Your task to perform on an android device: open a new tab in the chrome app Image 0: 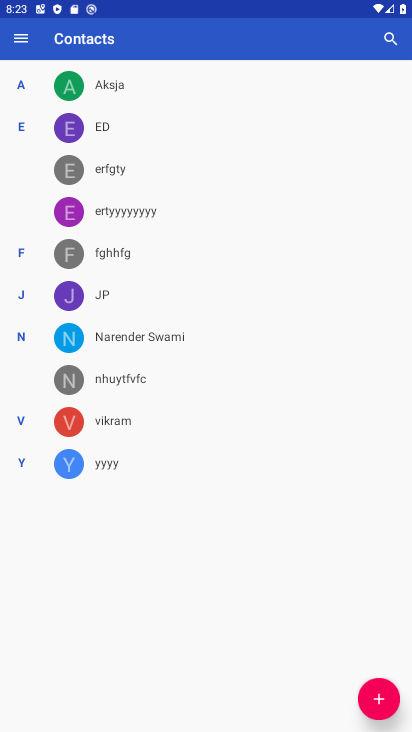
Step 0: press home button
Your task to perform on an android device: open a new tab in the chrome app Image 1: 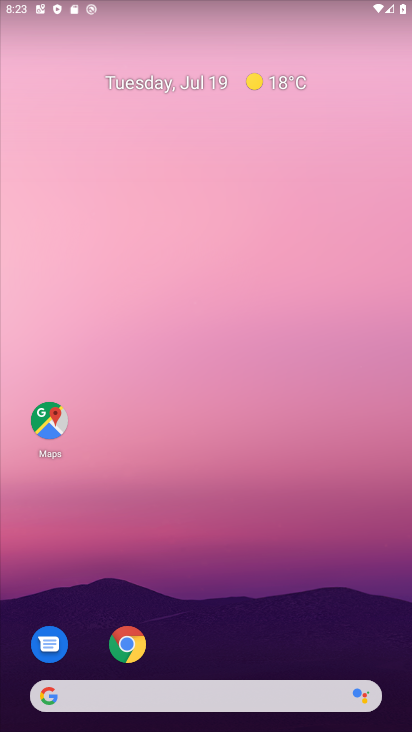
Step 1: click (128, 645)
Your task to perform on an android device: open a new tab in the chrome app Image 2: 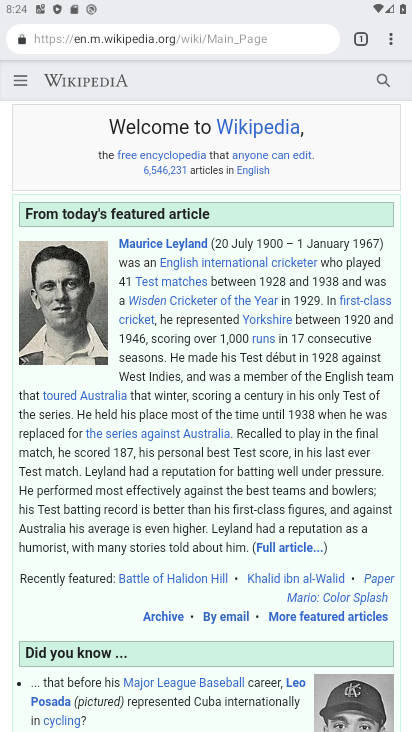
Step 2: click (389, 40)
Your task to perform on an android device: open a new tab in the chrome app Image 3: 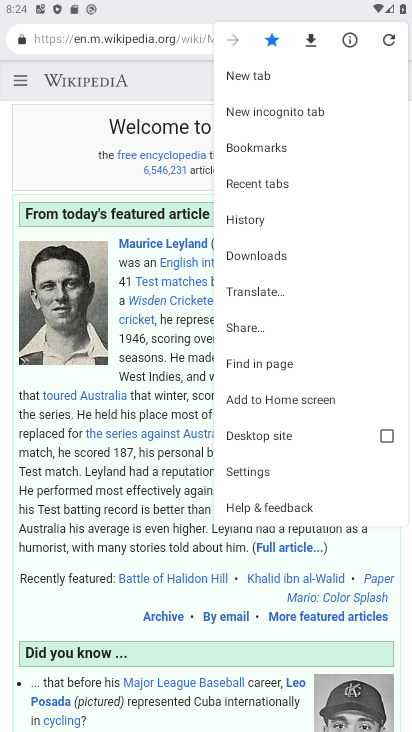
Step 3: click (245, 75)
Your task to perform on an android device: open a new tab in the chrome app Image 4: 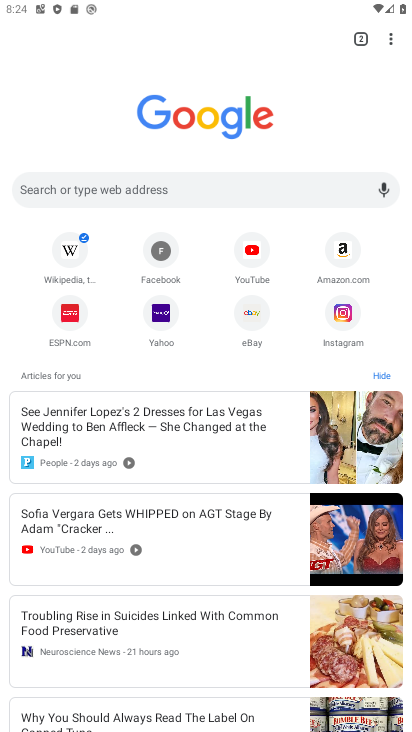
Step 4: task complete